Your task to perform on an android device: check android version Image 0: 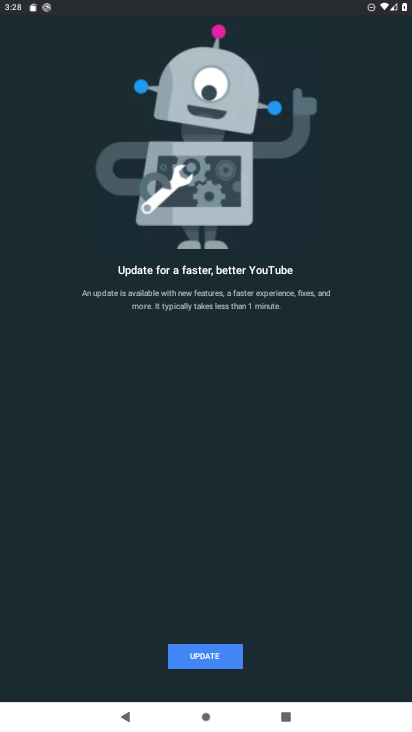
Step 0: press home button
Your task to perform on an android device: check android version Image 1: 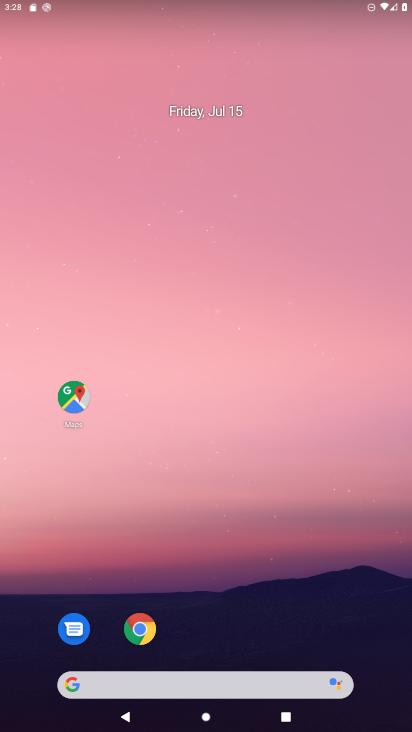
Step 1: drag from (235, 576) to (155, 19)
Your task to perform on an android device: check android version Image 2: 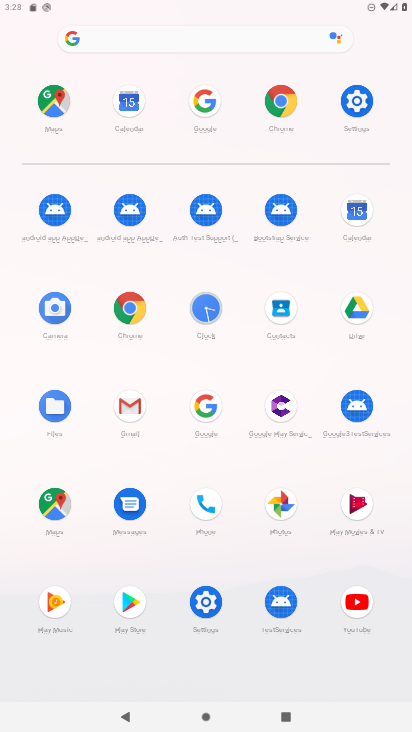
Step 2: click (349, 98)
Your task to perform on an android device: check android version Image 3: 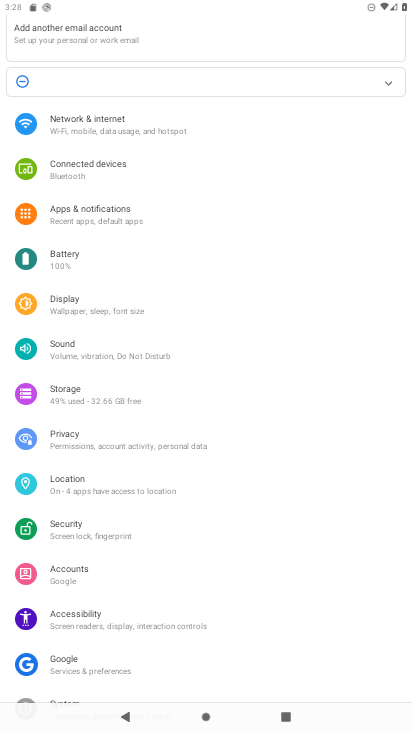
Step 3: task complete